Your task to perform on an android device: Open Google Maps and go to "Timeline" Image 0: 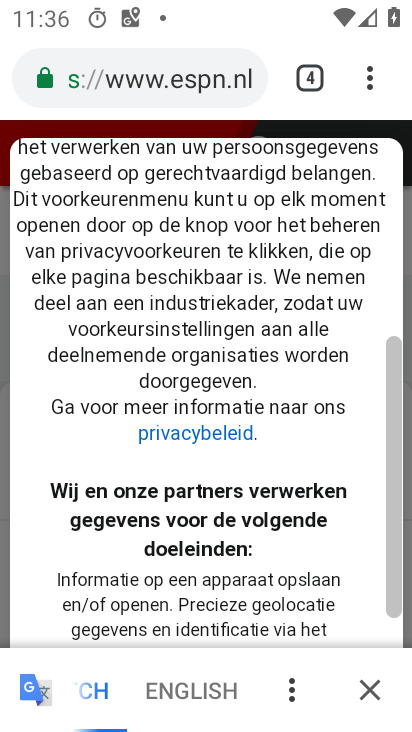
Step 0: press home button
Your task to perform on an android device: Open Google Maps and go to "Timeline" Image 1: 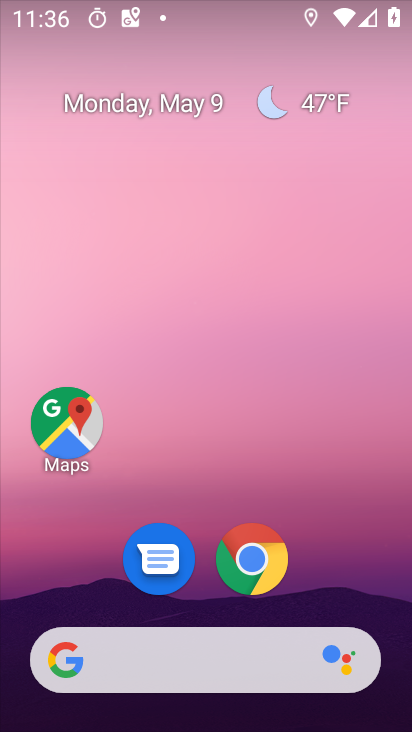
Step 1: drag from (332, 592) to (313, 289)
Your task to perform on an android device: Open Google Maps and go to "Timeline" Image 2: 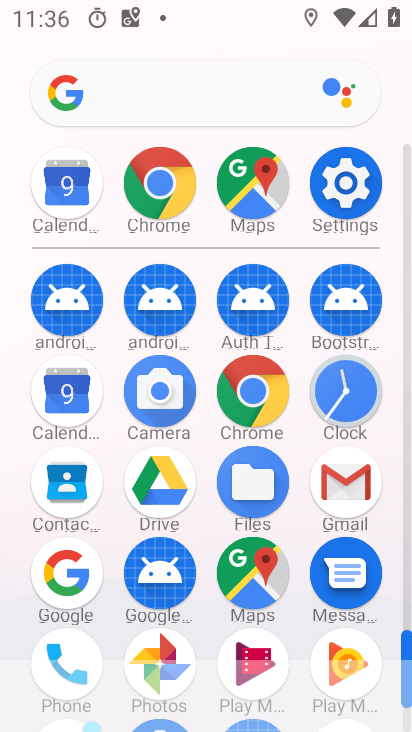
Step 2: click (244, 177)
Your task to perform on an android device: Open Google Maps and go to "Timeline" Image 3: 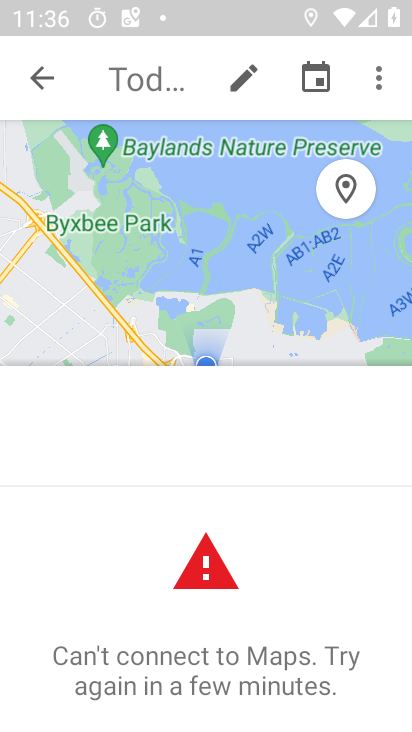
Step 3: task complete